Your task to perform on an android device: Is it going to rain tomorrow? Image 0: 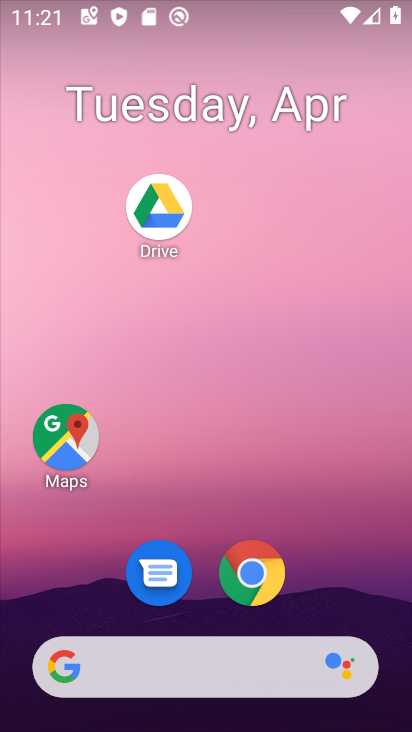
Step 0: click (214, 659)
Your task to perform on an android device: Is it going to rain tomorrow? Image 1: 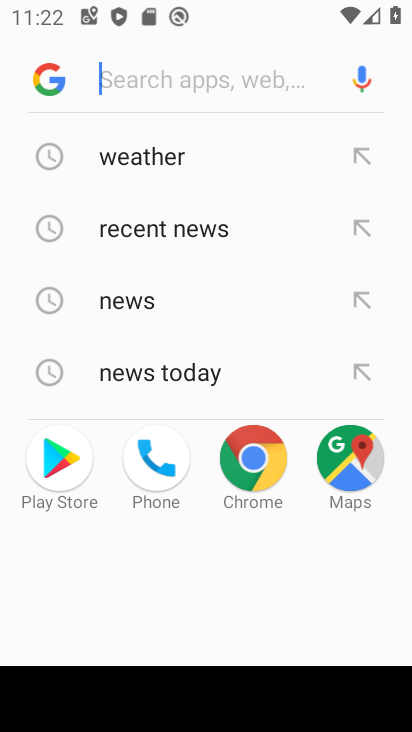
Step 1: click (161, 153)
Your task to perform on an android device: Is it going to rain tomorrow? Image 2: 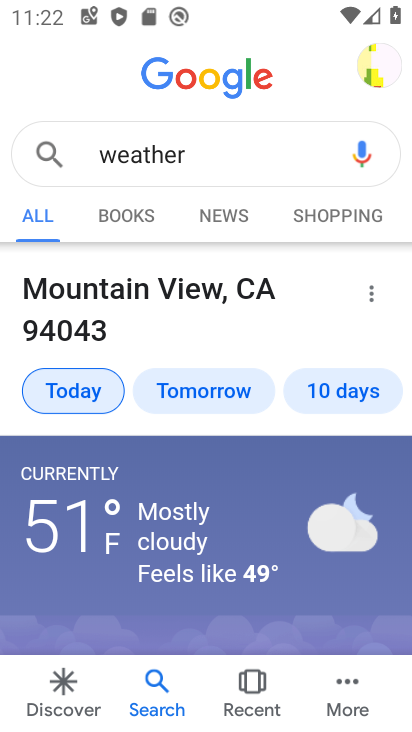
Step 2: click (205, 396)
Your task to perform on an android device: Is it going to rain tomorrow? Image 3: 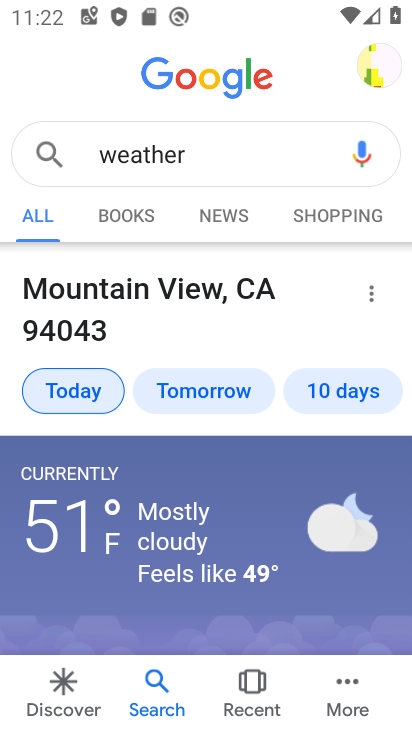
Step 3: click (205, 396)
Your task to perform on an android device: Is it going to rain tomorrow? Image 4: 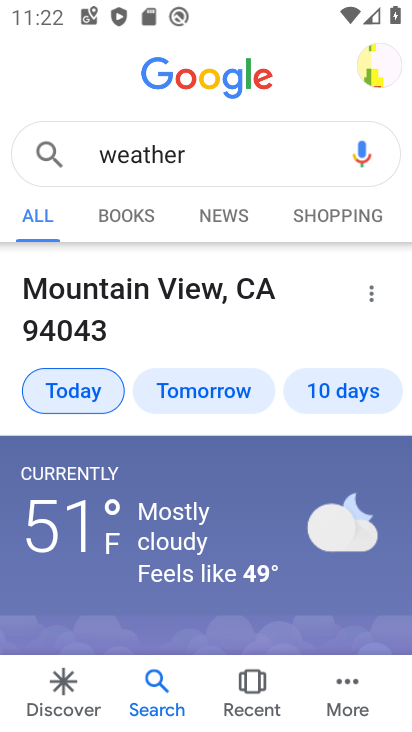
Step 4: click (205, 396)
Your task to perform on an android device: Is it going to rain tomorrow? Image 5: 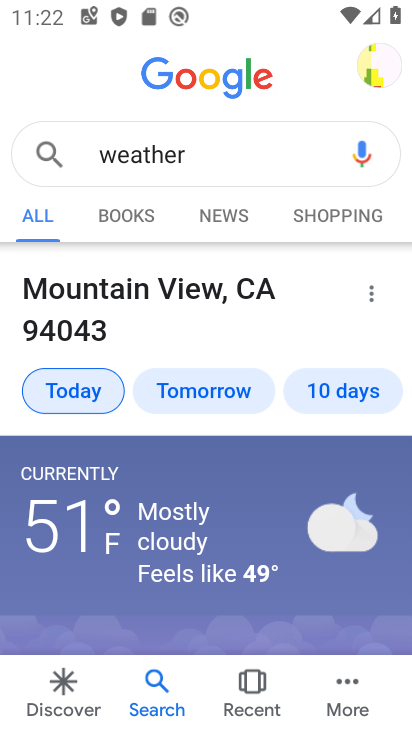
Step 5: click (205, 396)
Your task to perform on an android device: Is it going to rain tomorrow? Image 6: 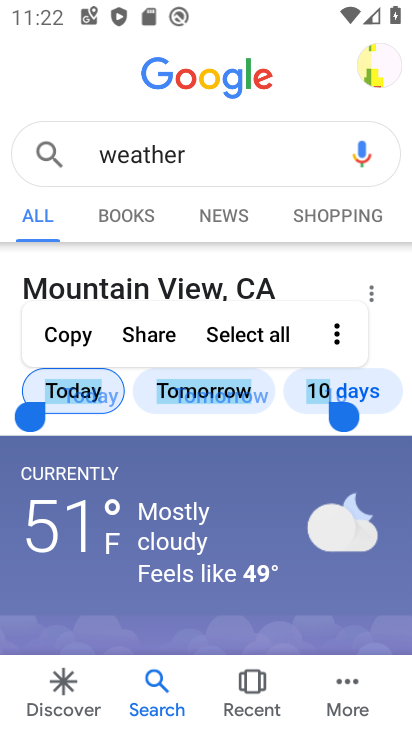
Step 6: click (205, 396)
Your task to perform on an android device: Is it going to rain tomorrow? Image 7: 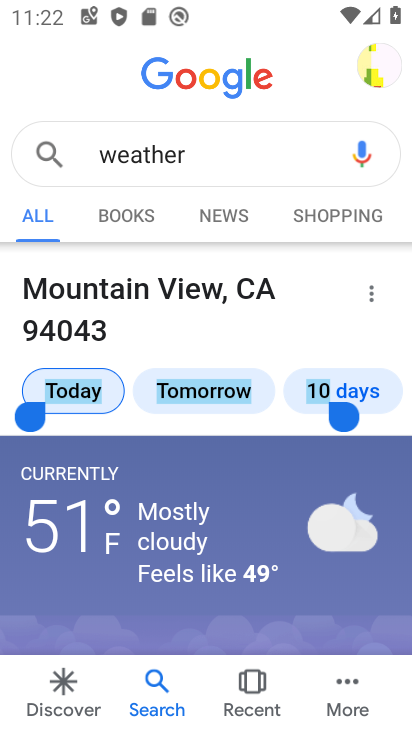
Step 7: click (259, 418)
Your task to perform on an android device: Is it going to rain tomorrow? Image 8: 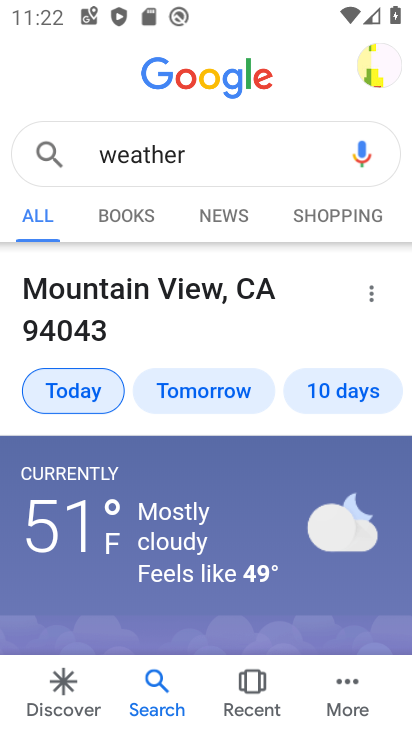
Step 8: click (211, 398)
Your task to perform on an android device: Is it going to rain tomorrow? Image 9: 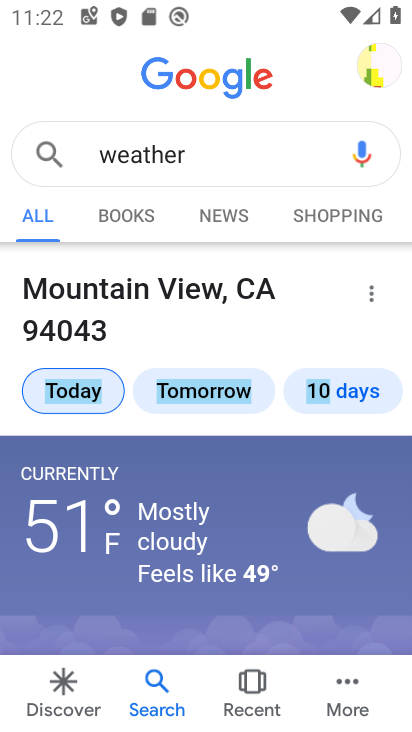
Step 9: click (217, 401)
Your task to perform on an android device: Is it going to rain tomorrow? Image 10: 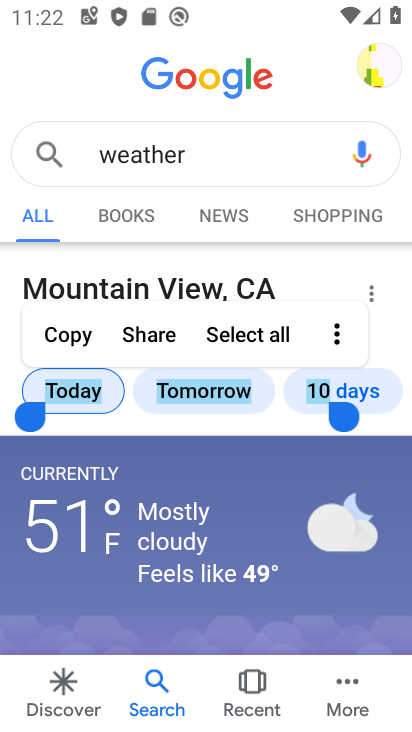
Step 10: click (219, 405)
Your task to perform on an android device: Is it going to rain tomorrow? Image 11: 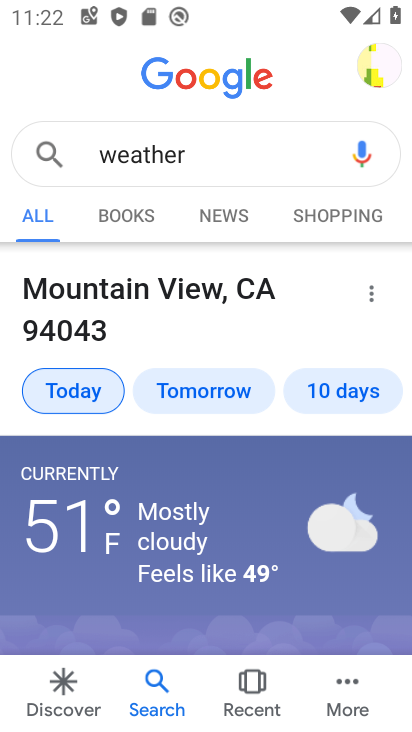
Step 11: task complete